Your task to perform on an android device: toggle javascript in the chrome app Image 0: 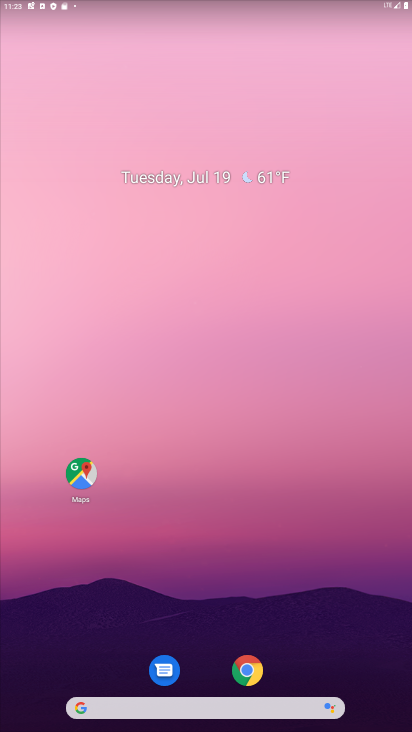
Step 0: click (263, 675)
Your task to perform on an android device: toggle javascript in the chrome app Image 1: 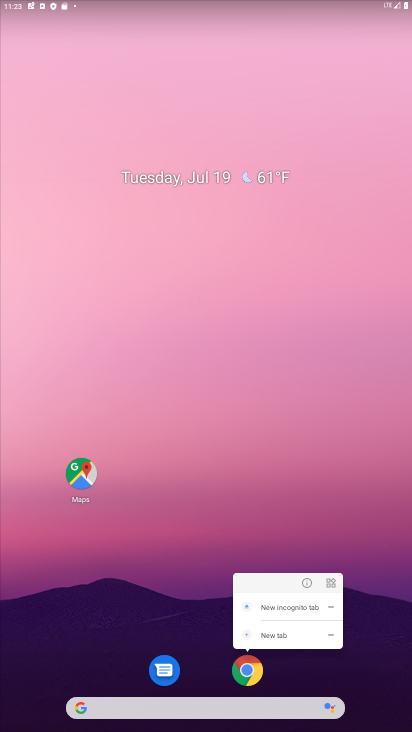
Step 1: click (263, 675)
Your task to perform on an android device: toggle javascript in the chrome app Image 2: 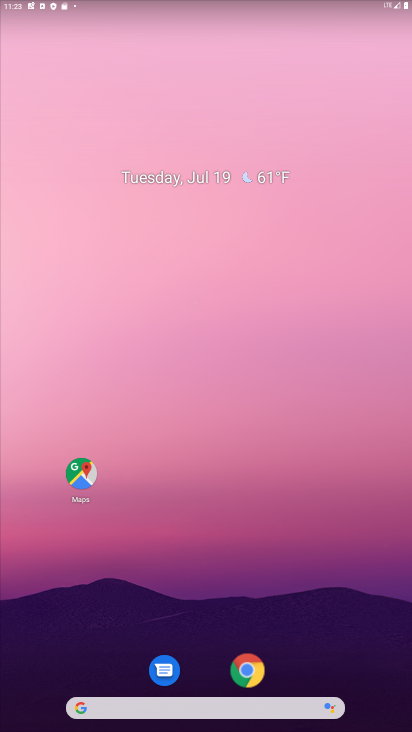
Step 2: click (263, 675)
Your task to perform on an android device: toggle javascript in the chrome app Image 3: 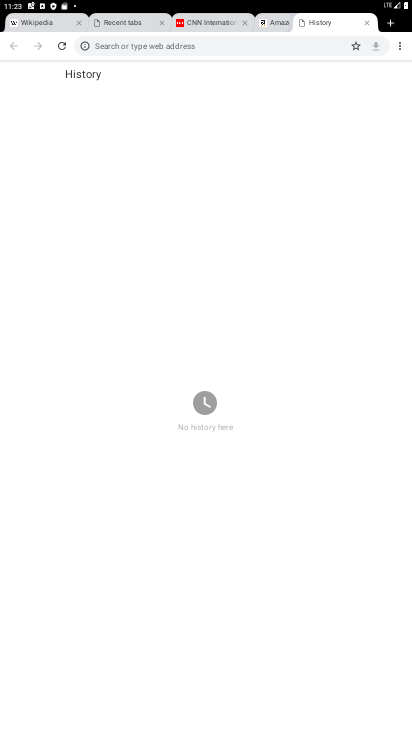
Step 3: click (396, 40)
Your task to perform on an android device: toggle javascript in the chrome app Image 4: 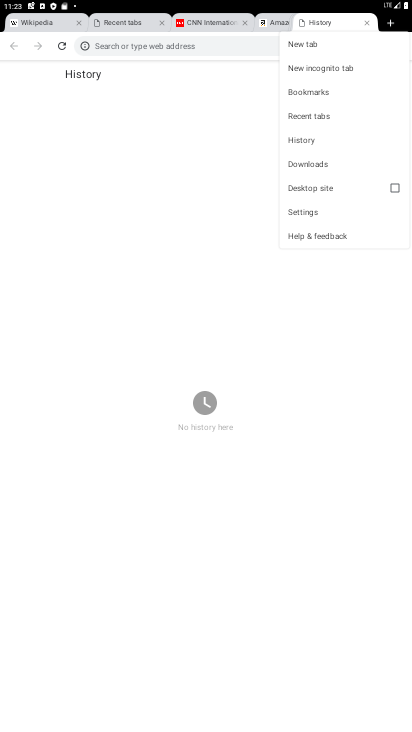
Step 4: click (326, 215)
Your task to perform on an android device: toggle javascript in the chrome app Image 5: 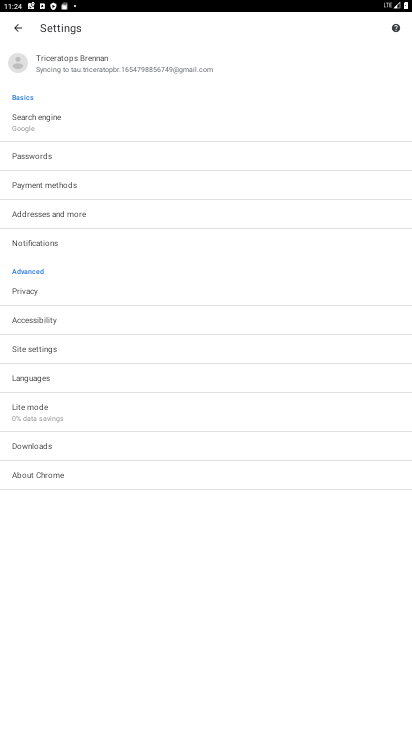
Step 5: click (59, 347)
Your task to perform on an android device: toggle javascript in the chrome app Image 6: 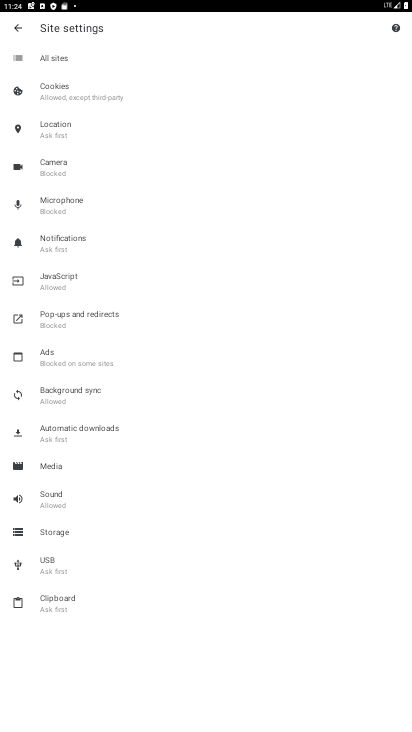
Step 6: click (71, 272)
Your task to perform on an android device: toggle javascript in the chrome app Image 7: 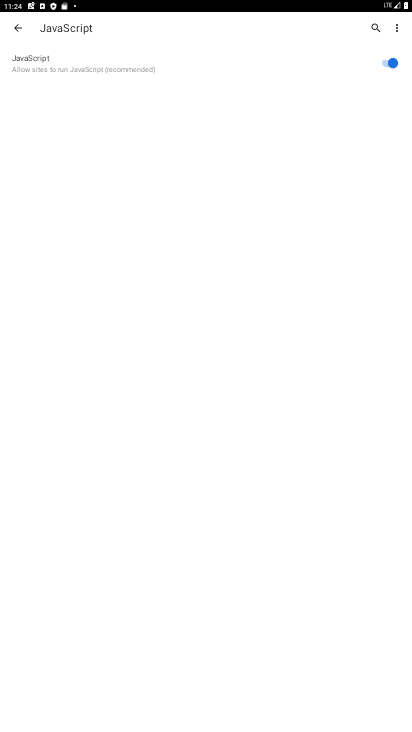
Step 7: click (394, 64)
Your task to perform on an android device: toggle javascript in the chrome app Image 8: 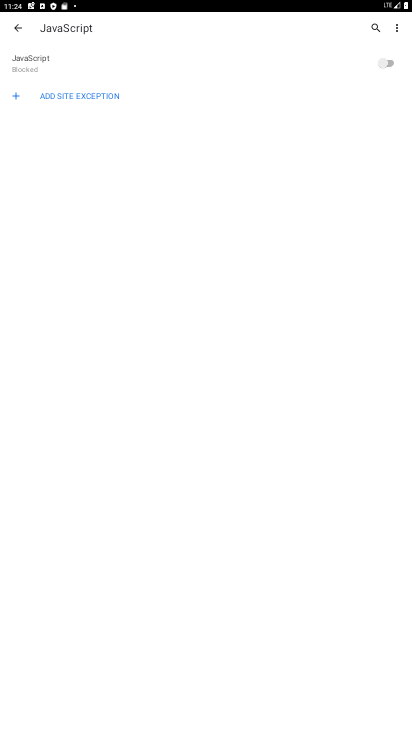
Step 8: task complete